Your task to perform on an android device: refresh tabs in the chrome app Image 0: 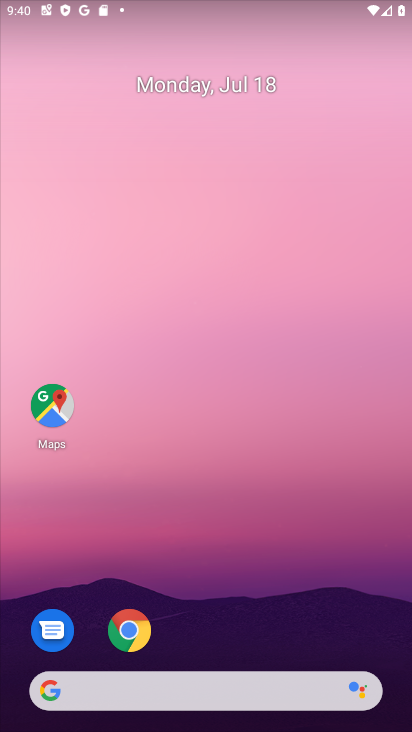
Step 0: drag from (341, 634) to (249, 52)
Your task to perform on an android device: refresh tabs in the chrome app Image 1: 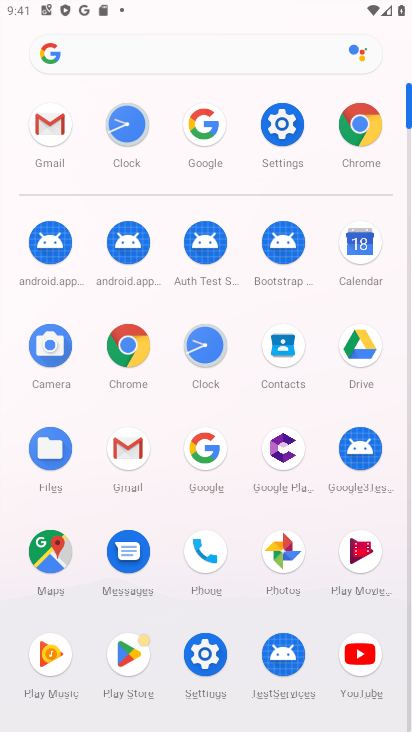
Step 1: click (129, 354)
Your task to perform on an android device: refresh tabs in the chrome app Image 2: 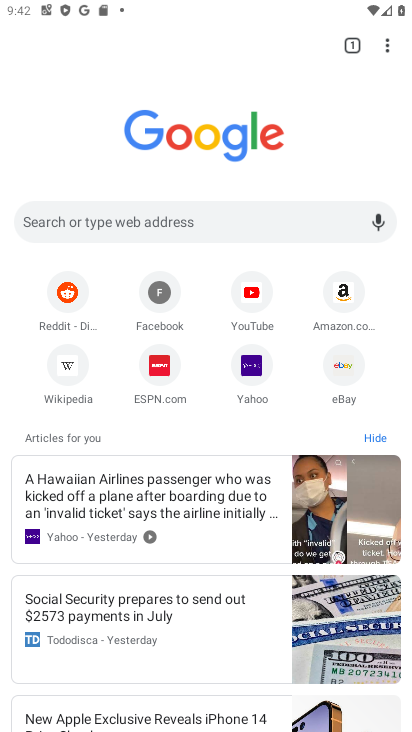
Step 2: click (386, 44)
Your task to perform on an android device: refresh tabs in the chrome app Image 3: 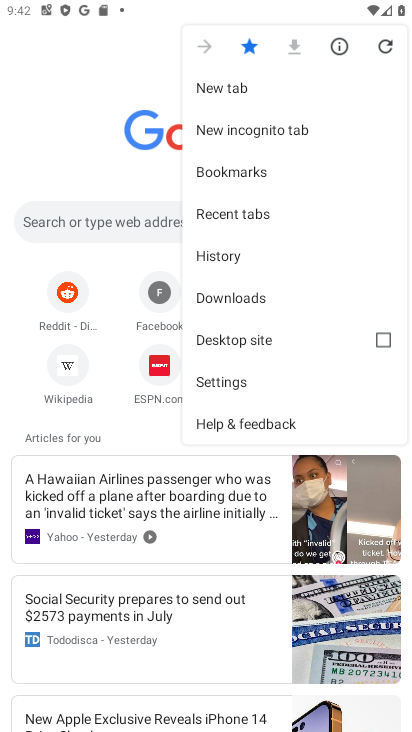
Step 3: click (386, 44)
Your task to perform on an android device: refresh tabs in the chrome app Image 4: 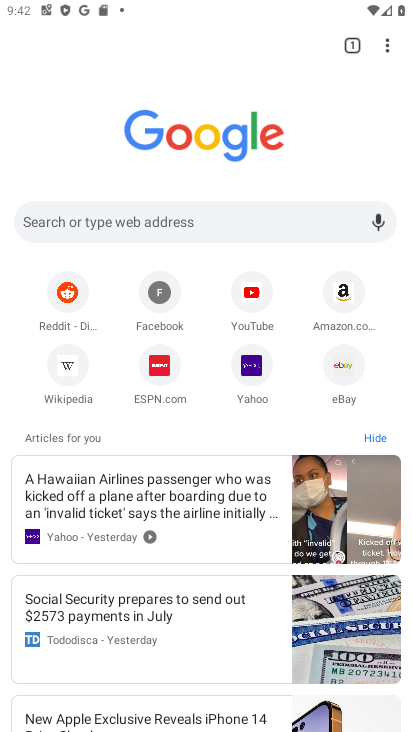
Step 4: task complete